Your task to perform on an android device: visit the assistant section in the google photos Image 0: 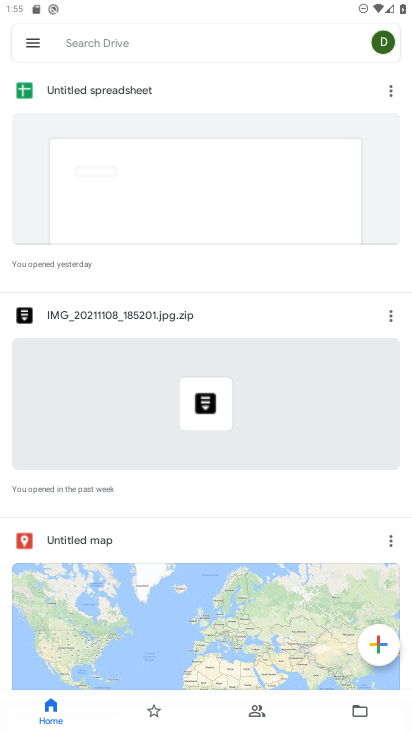
Step 0: press home button
Your task to perform on an android device: visit the assistant section in the google photos Image 1: 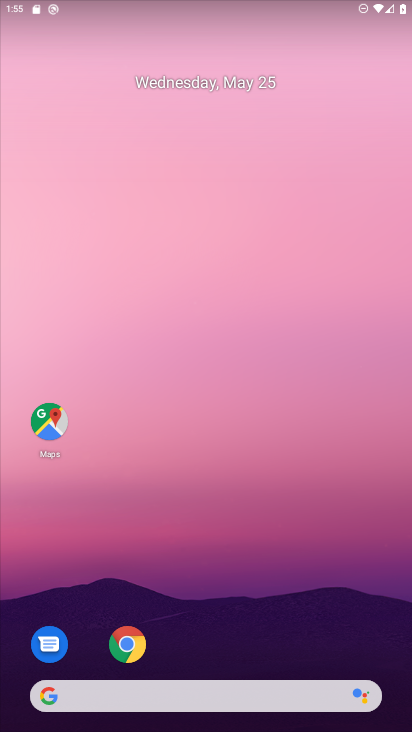
Step 1: drag from (229, 661) to (176, 303)
Your task to perform on an android device: visit the assistant section in the google photos Image 2: 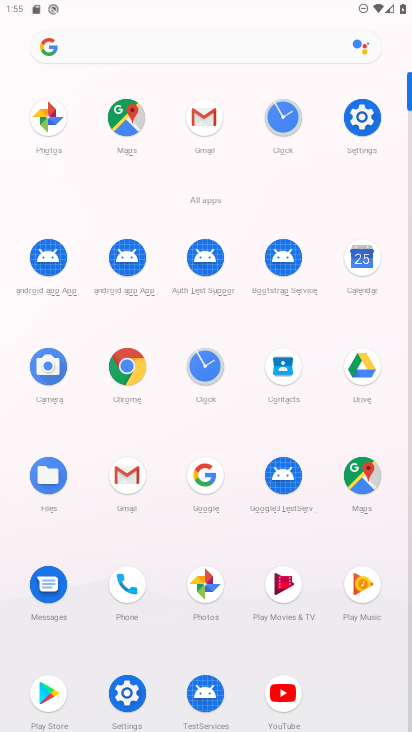
Step 2: click (210, 596)
Your task to perform on an android device: visit the assistant section in the google photos Image 3: 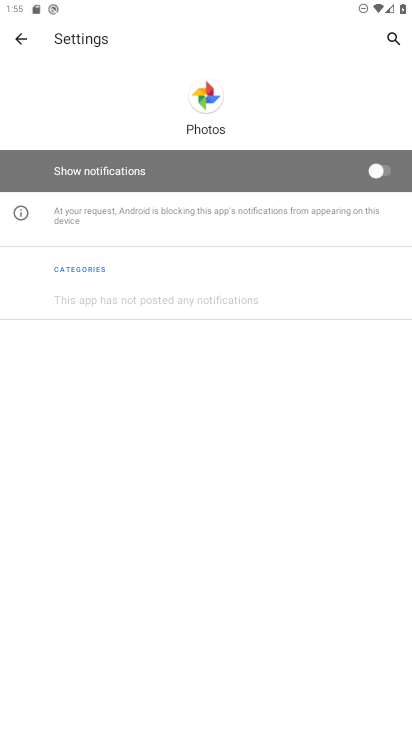
Step 3: press back button
Your task to perform on an android device: visit the assistant section in the google photos Image 4: 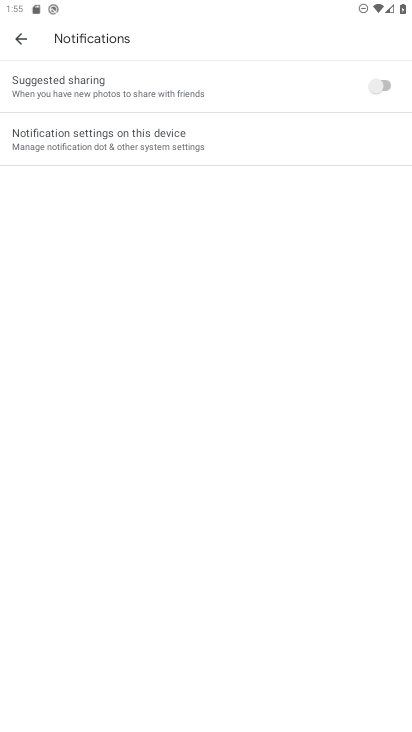
Step 4: press back button
Your task to perform on an android device: visit the assistant section in the google photos Image 5: 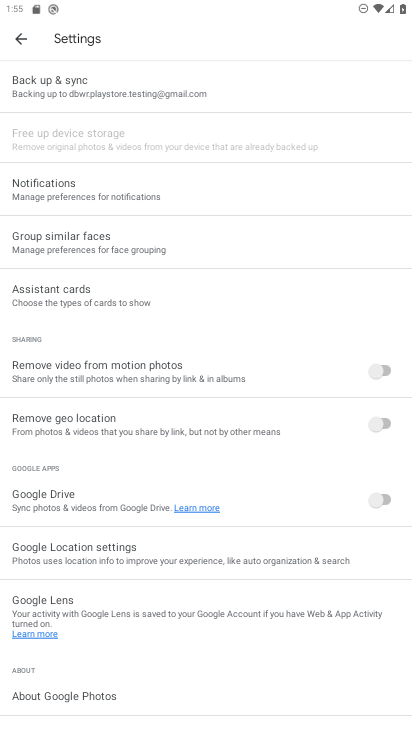
Step 5: press back button
Your task to perform on an android device: visit the assistant section in the google photos Image 6: 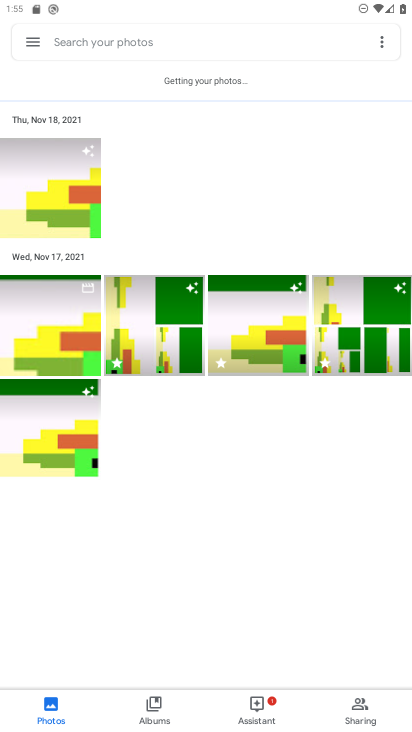
Step 6: click (260, 722)
Your task to perform on an android device: visit the assistant section in the google photos Image 7: 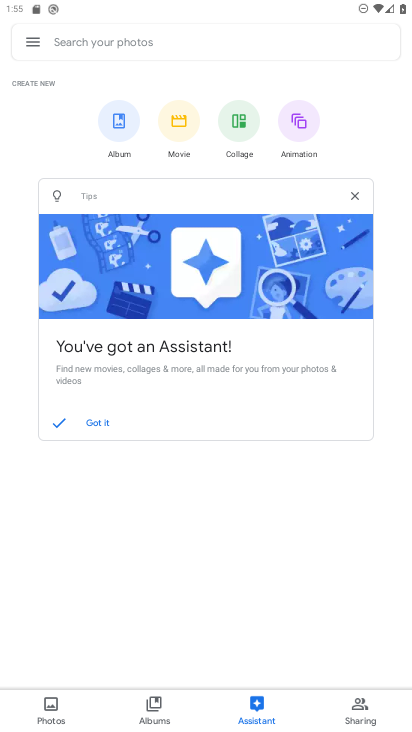
Step 7: task complete